Your task to perform on an android device: check out phone information Image 0: 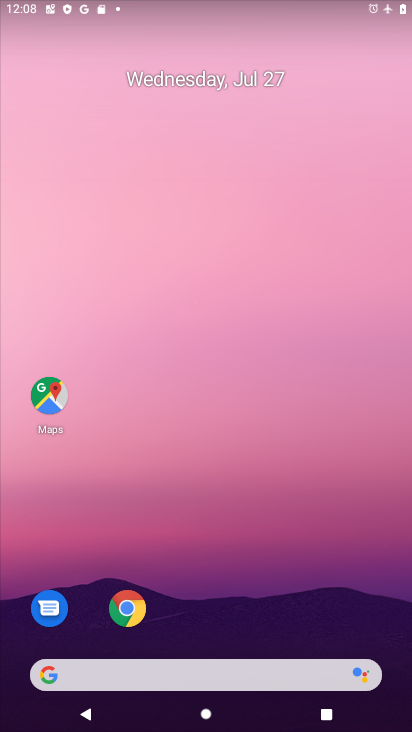
Step 0: drag from (205, 668) to (244, 85)
Your task to perform on an android device: check out phone information Image 1: 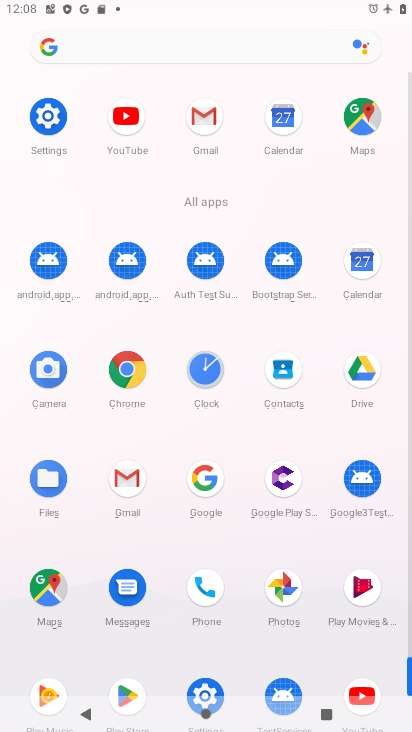
Step 1: click (49, 114)
Your task to perform on an android device: check out phone information Image 2: 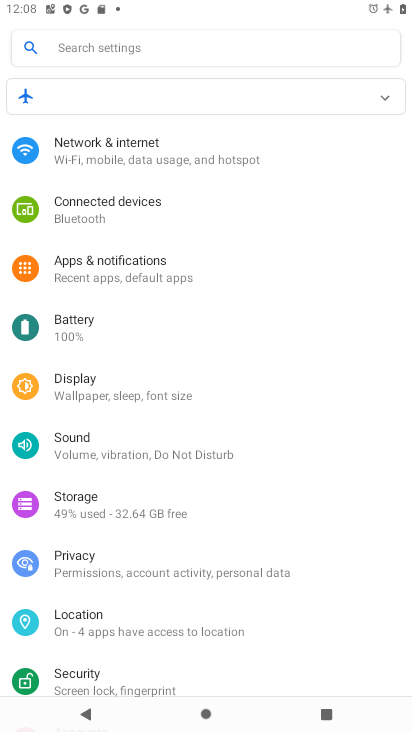
Step 2: drag from (114, 587) to (132, 391)
Your task to perform on an android device: check out phone information Image 3: 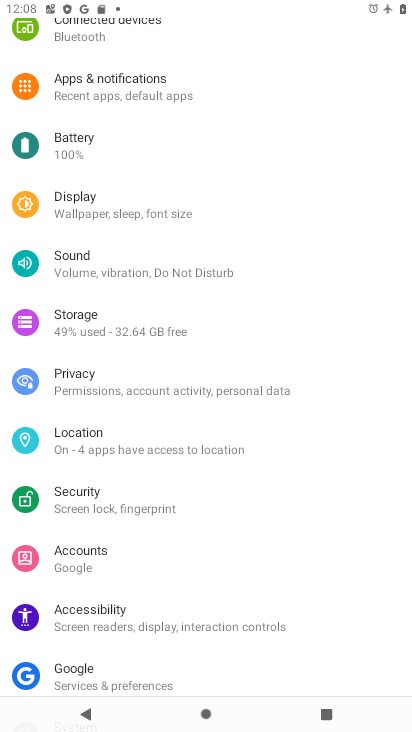
Step 3: drag from (161, 588) to (156, 379)
Your task to perform on an android device: check out phone information Image 4: 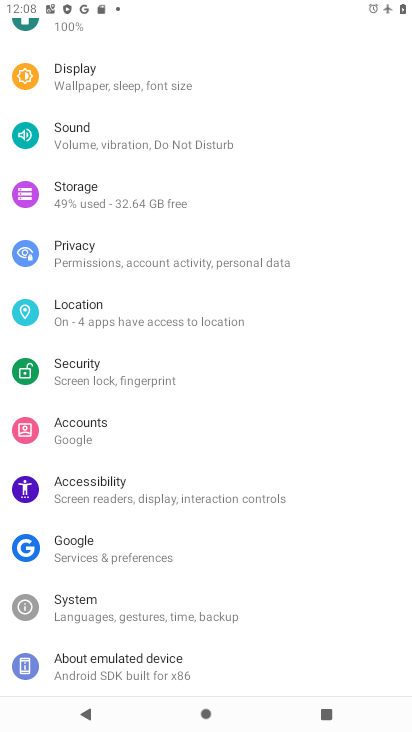
Step 4: drag from (134, 621) to (155, 385)
Your task to perform on an android device: check out phone information Image 5: 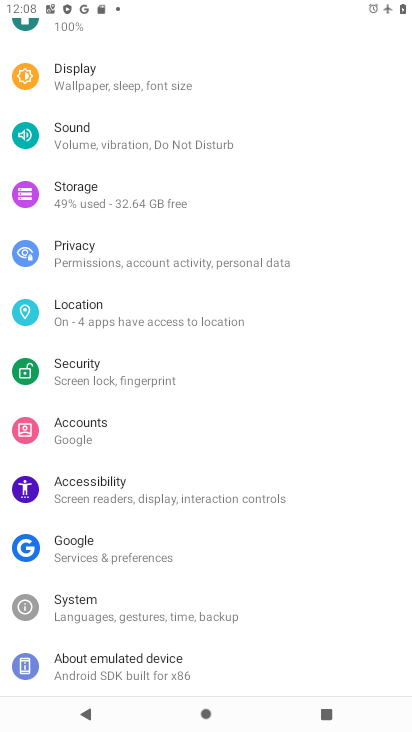
Step 5: click (150, 664)
Your task to perform on an android device: check out phone information Image 6: 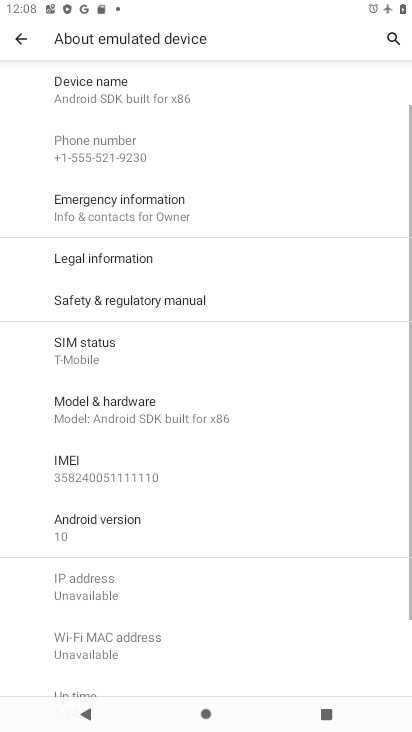
Step 6: task complete